Your task to perform on an android device: Open Reddit.com Image 0: 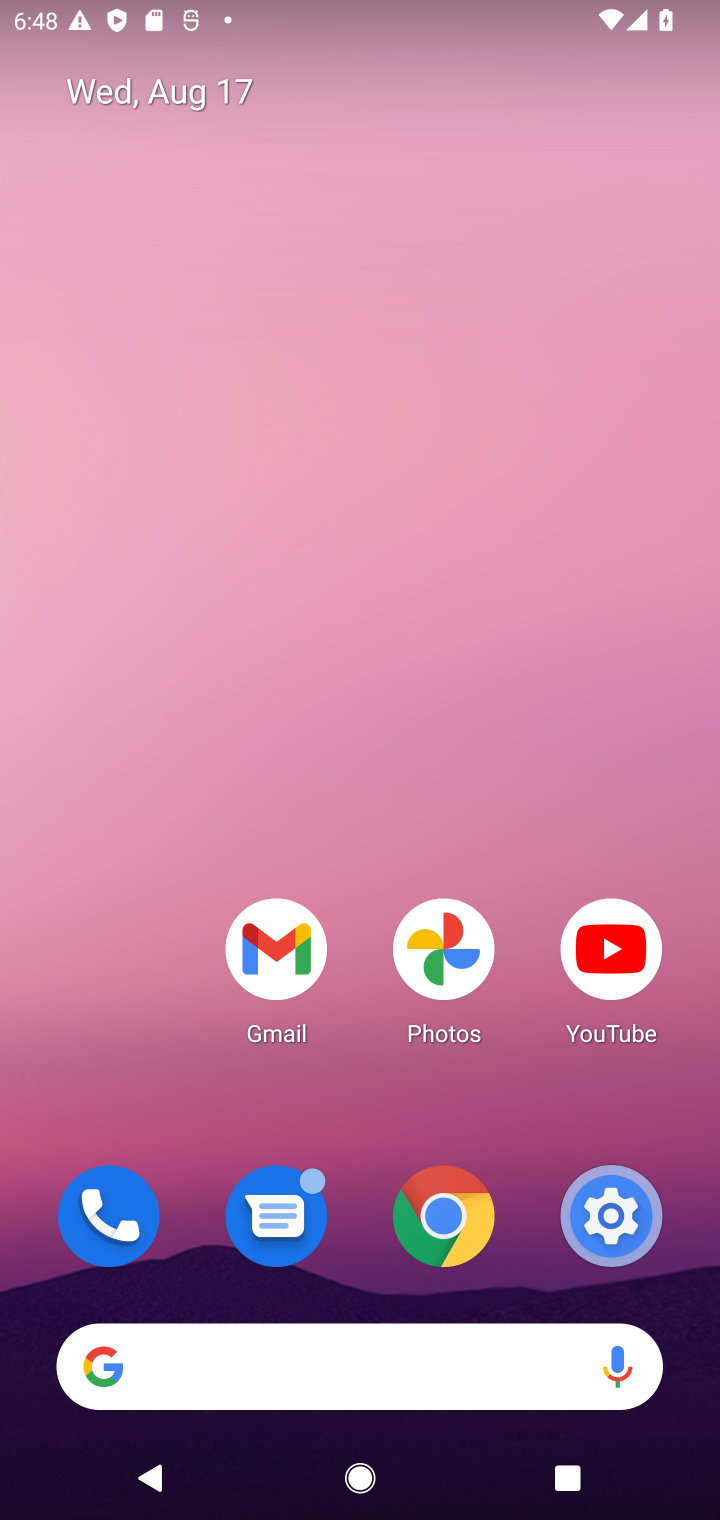
Step 0: drag from (527, 1139) to (533, 10)
Your task to perform on an android device: Open Reddit.com Image 1: 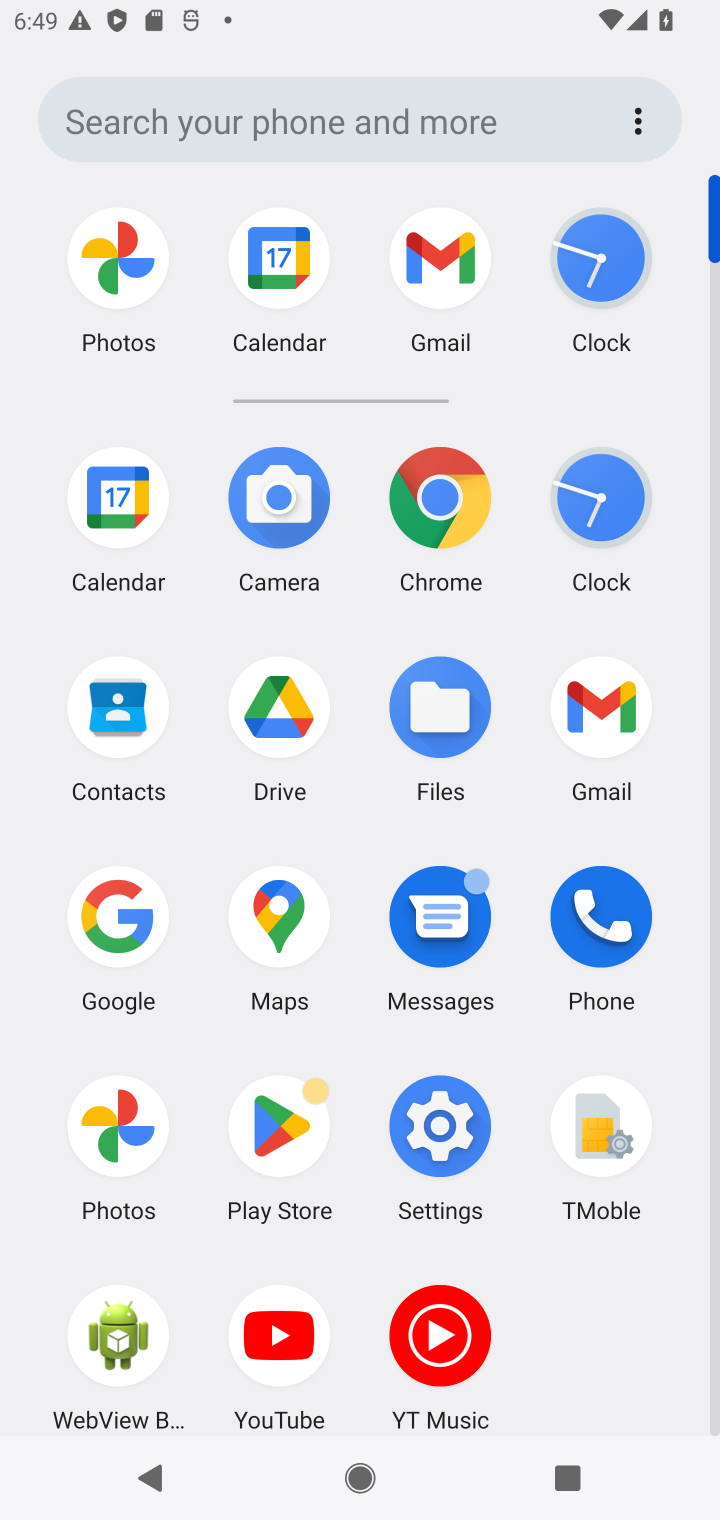
Step 1: click (421, 482)
Your task to perform on an android device: Open Reddit.com Image 2: 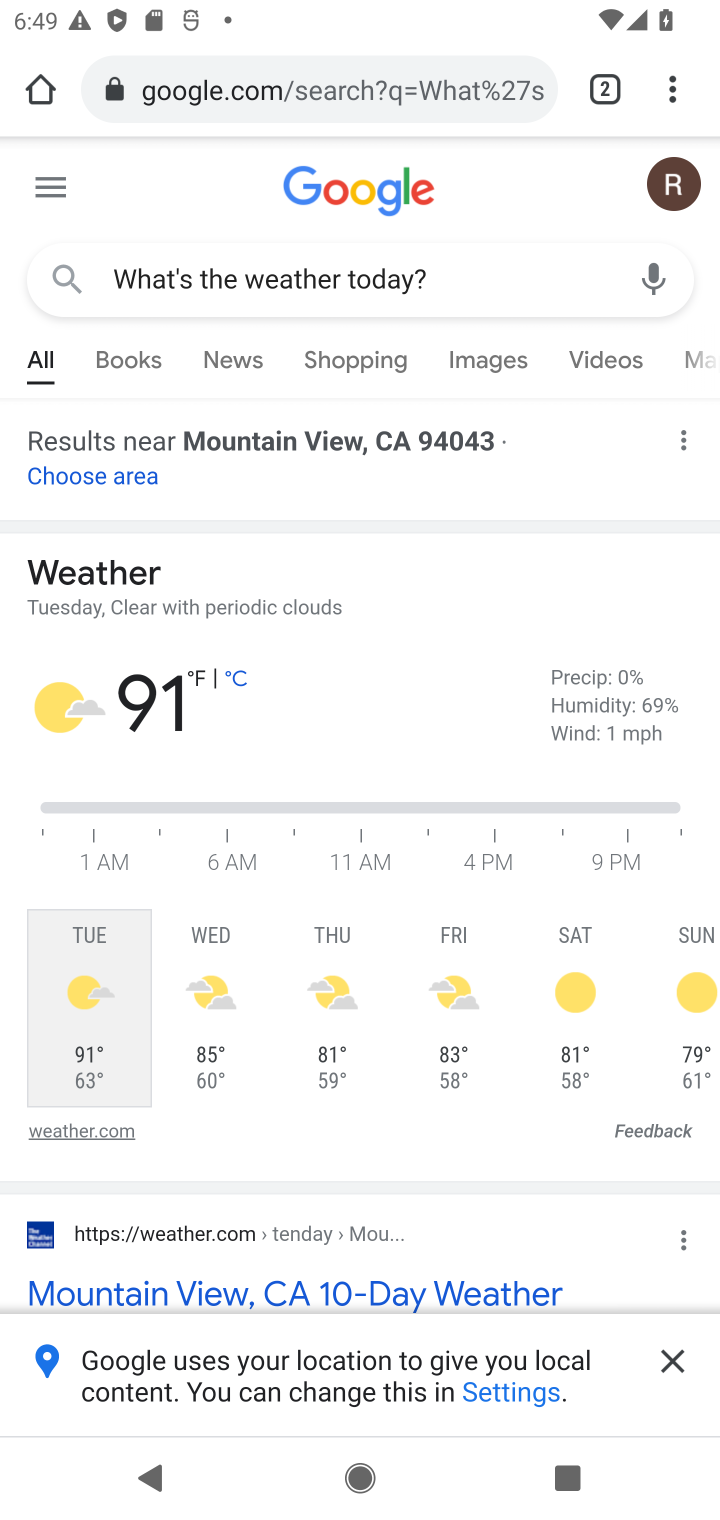
Step 2: click (294, 85)
Your task to perform on an android device: Open Reddit.com Image 3: 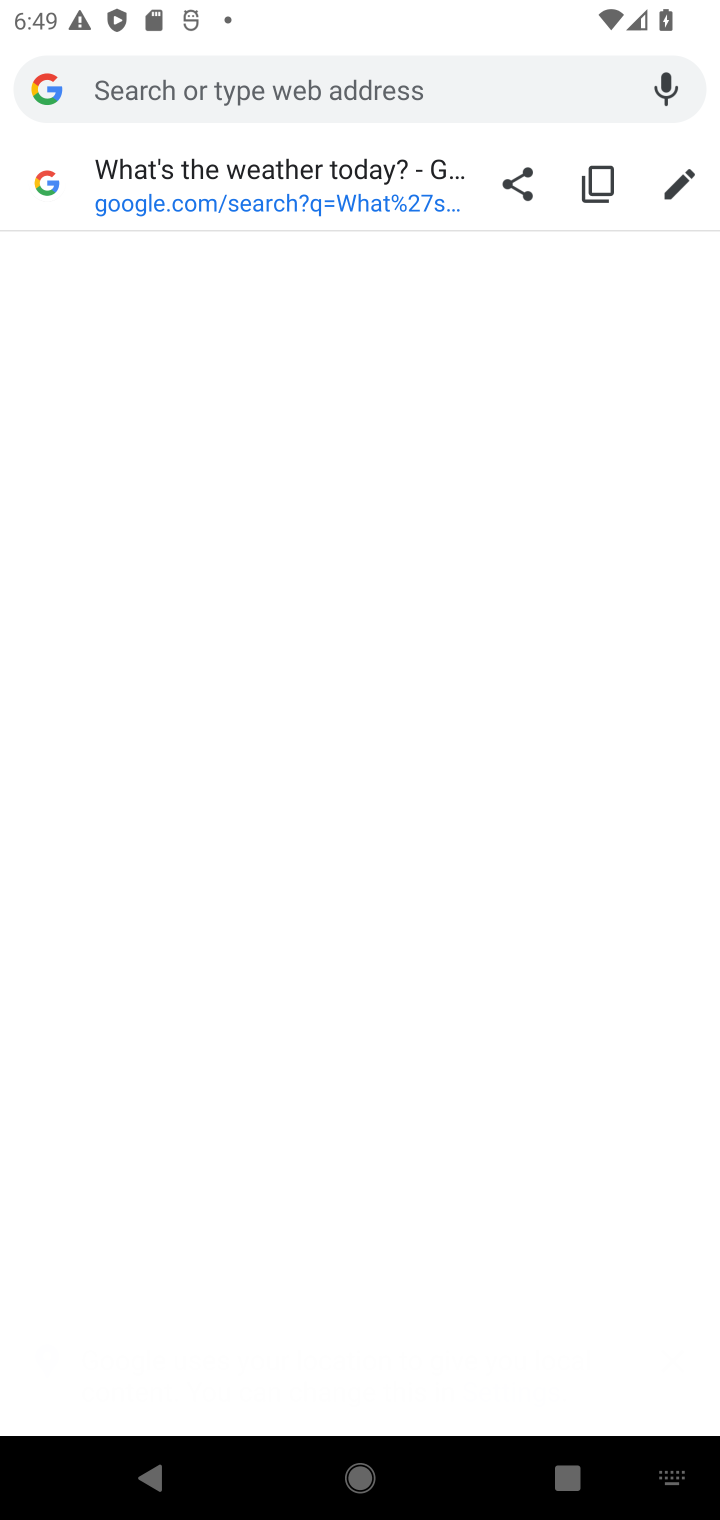
Step 3: type " Reddit.com"
Your task to perform on an android device: Open Reddit.com Image 4: 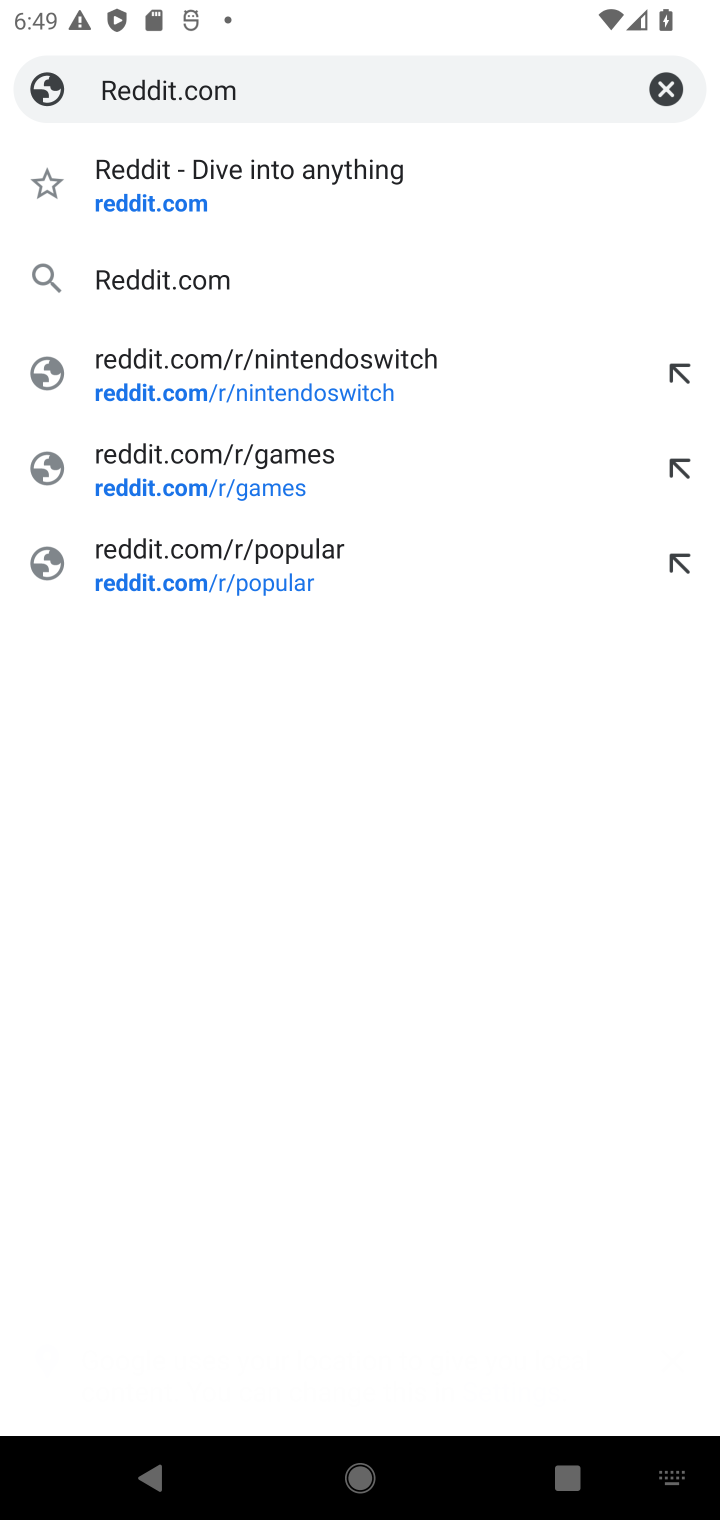
Step 4: click (167, 230)
Your task to perform on an android device: Open Reddit.com Image 5: 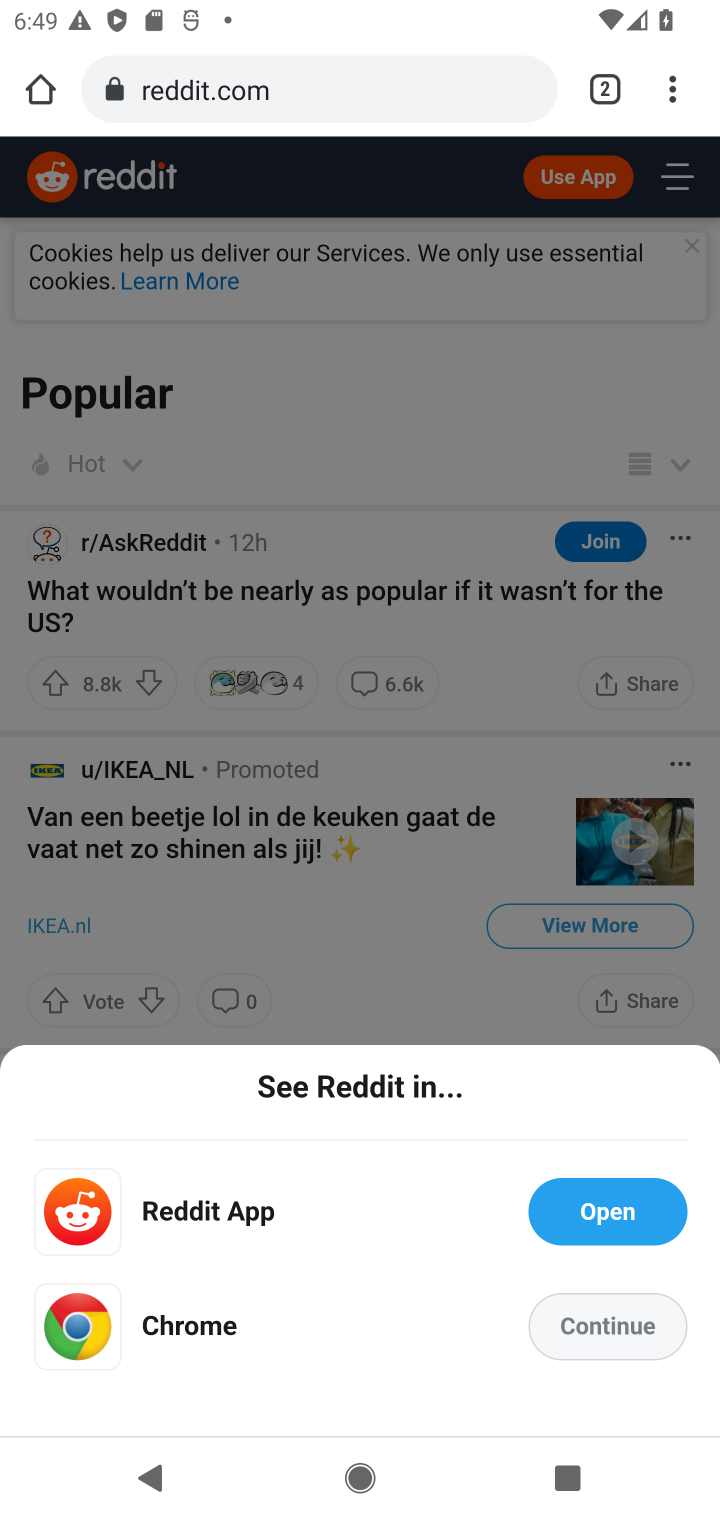
Step 5: task complete